Your task to perform on an android device: Turn on the flashlight Image 0: 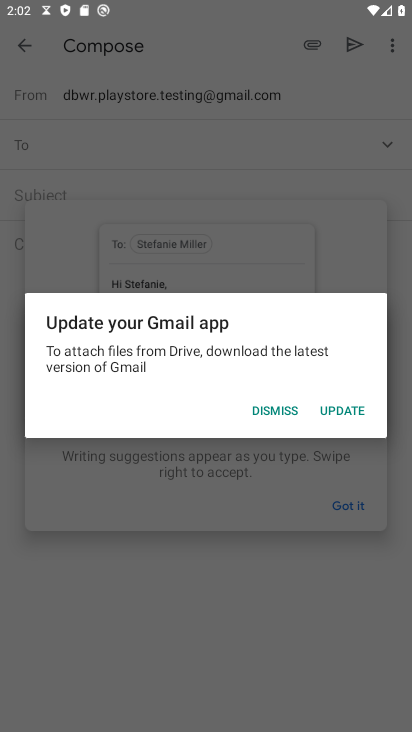
Step 0: press home button
Your task to perform on an android device: Turn on the flashlight Image 1: 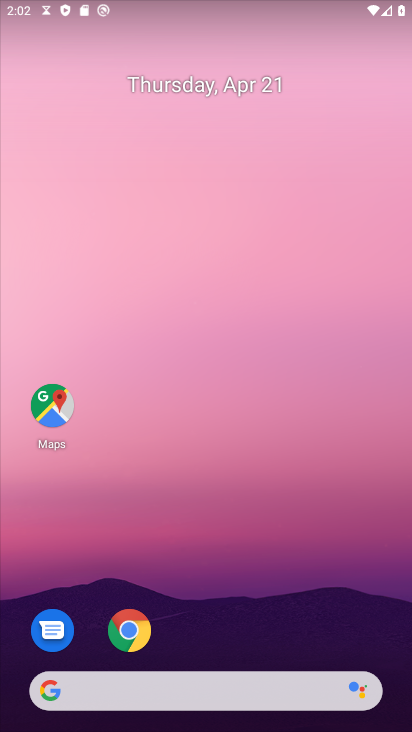
Step 1: task complete